Your task to perform on an android device: Go to Wikipedia Image 0: 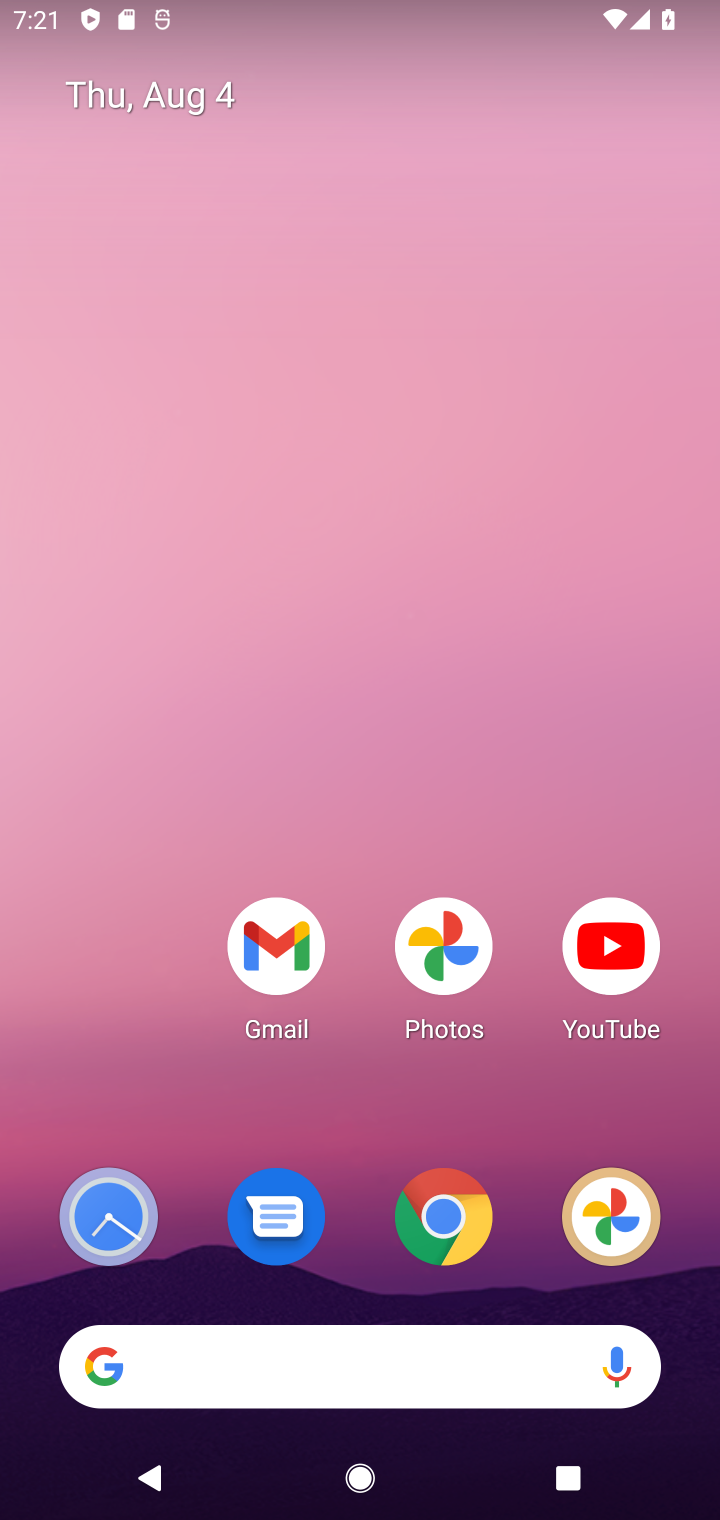
Step 0: click (441, 1229)
Your task to perform on an android device: Go to Wikipedia Image 1: 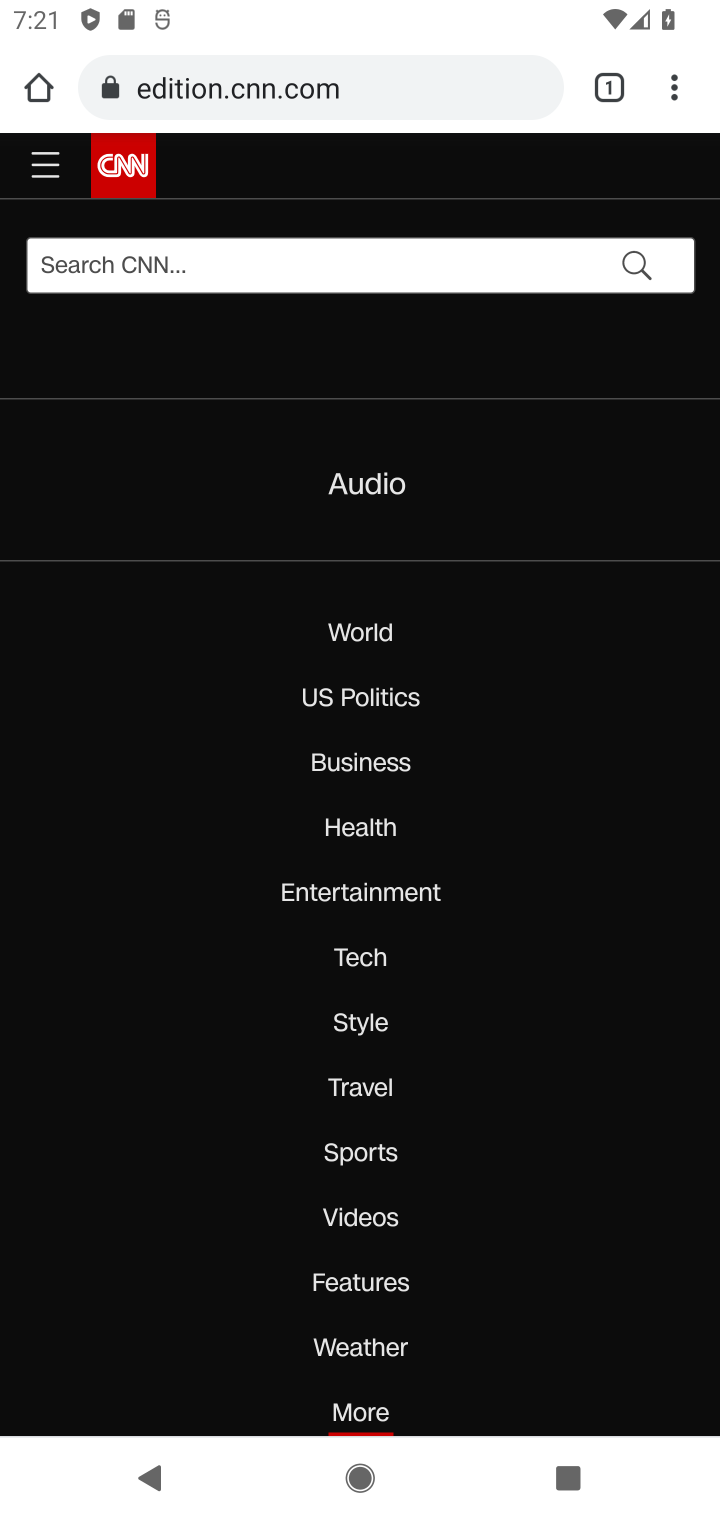
Step 1: click (377, 73)
Your task to perform on an android device: Go to Wikipedia Image 2: 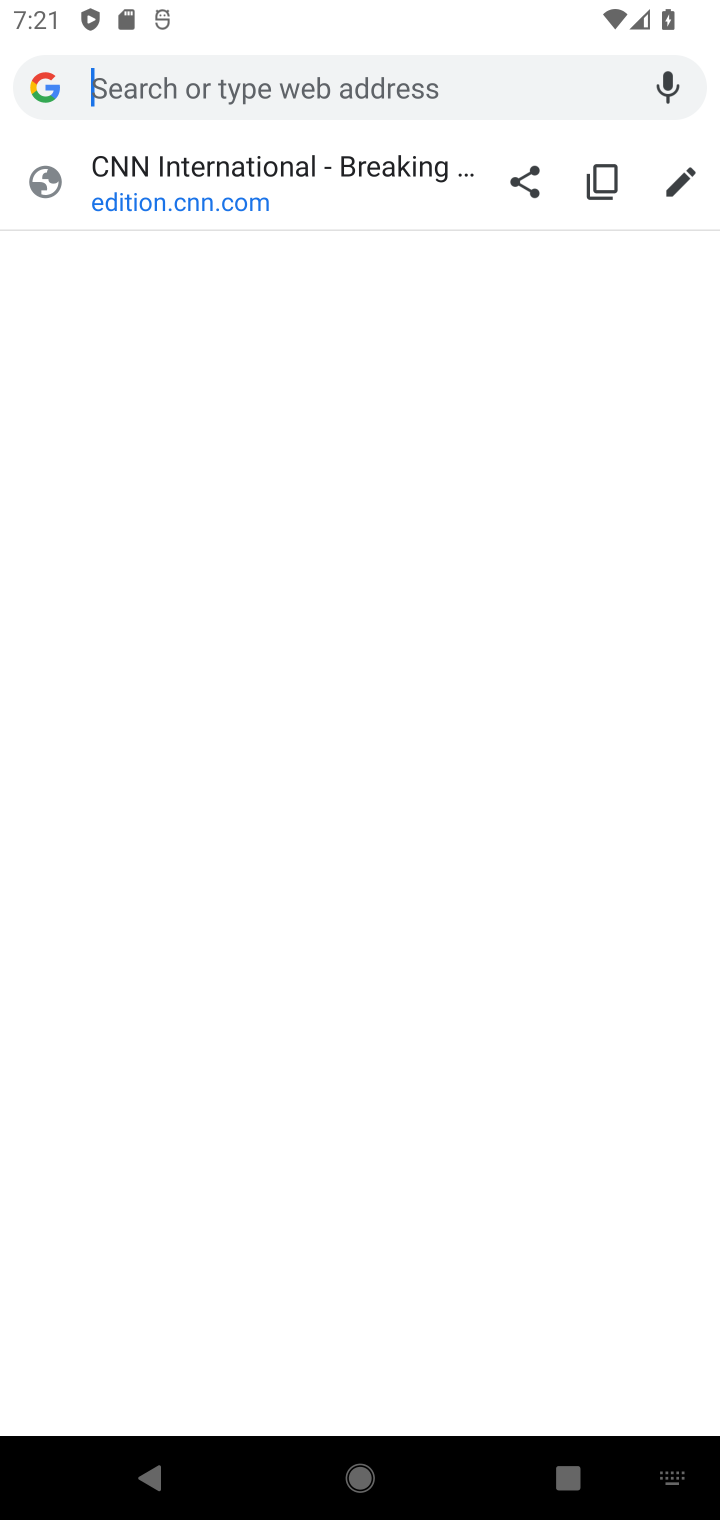
Step 2: type "wikipedia"
Your task to perform on an android device: Go to Wikipedia Image 3: 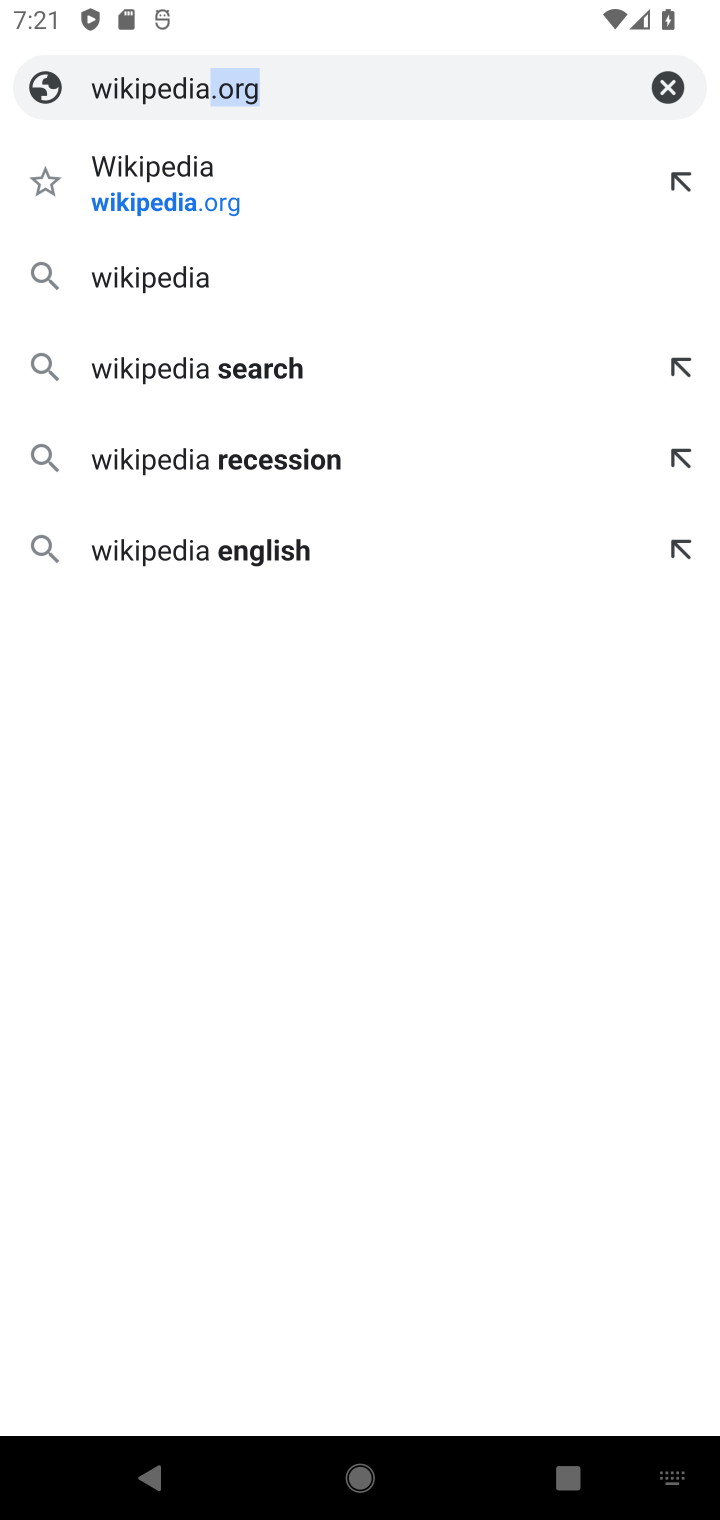
Step 3: click (196, 184)
Your task to perform on an android device: Go to Wikipedia Image 4: 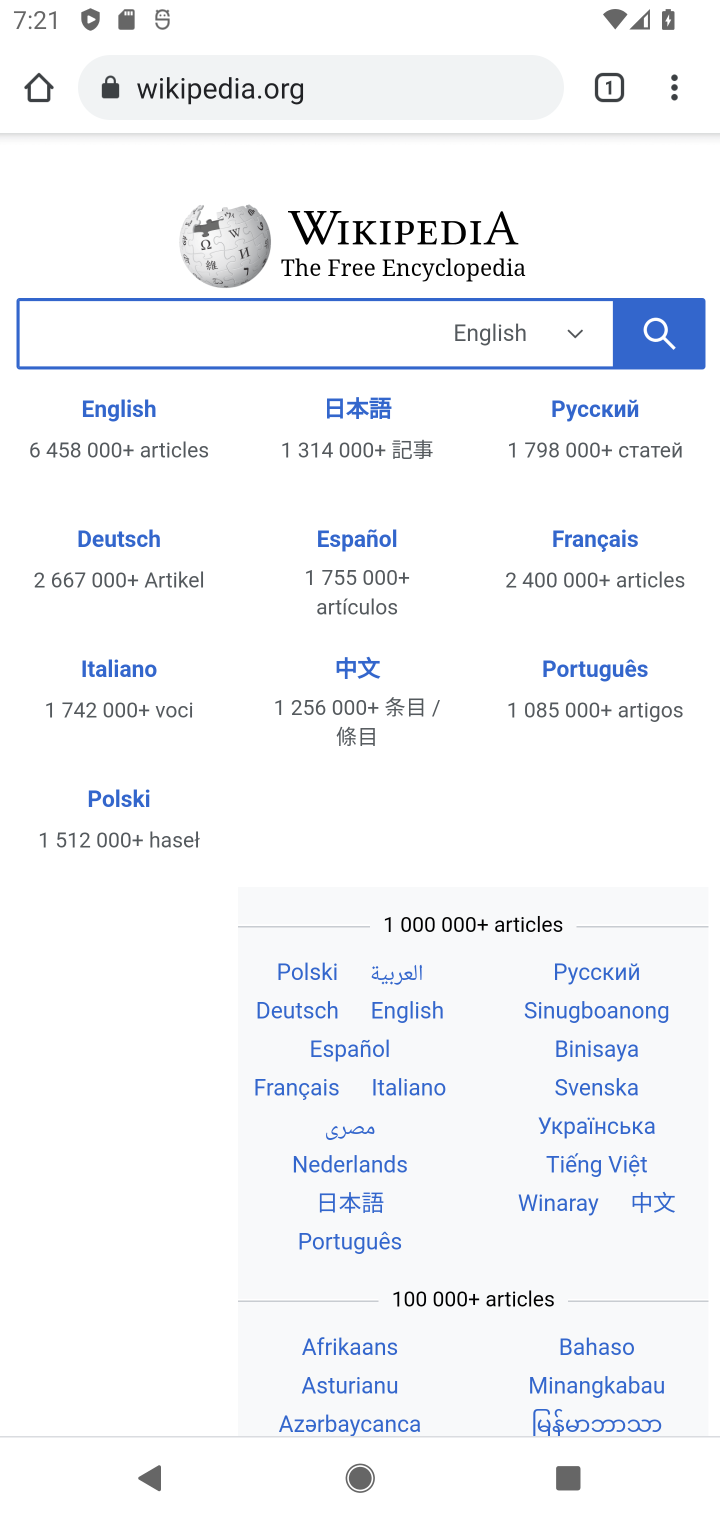
Step 4: task complete